Your task to perform on an android device: Open Chrome and go to settings Image 0: 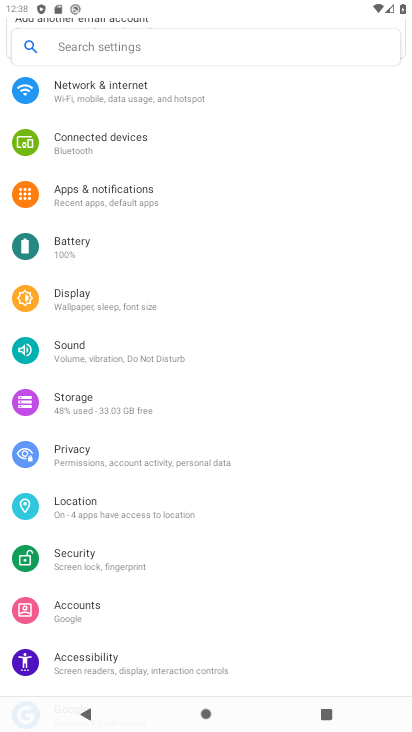
Step 0: press home button
Your task to perform on an android device: Open Chrome and go to settings Image 1: 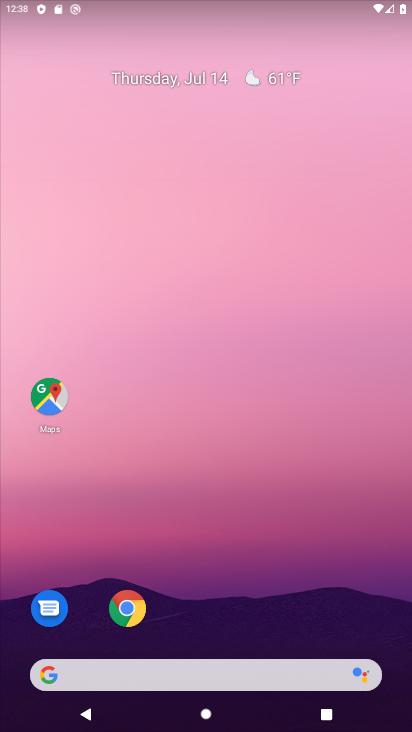
Step 1: drag from (366, 589) to (347, 180)
Your task to perform on an android device: Open Chrome and go to settings Image 2: 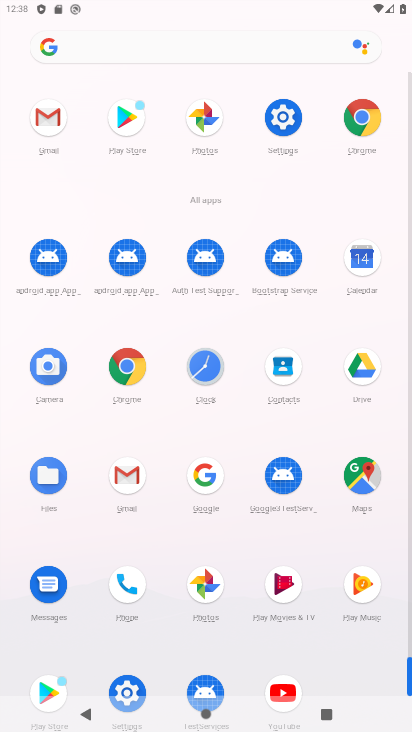
Step 2: click (130, 365)
Your task to perform on an android device: Open Chrome and go to settings Image 3: 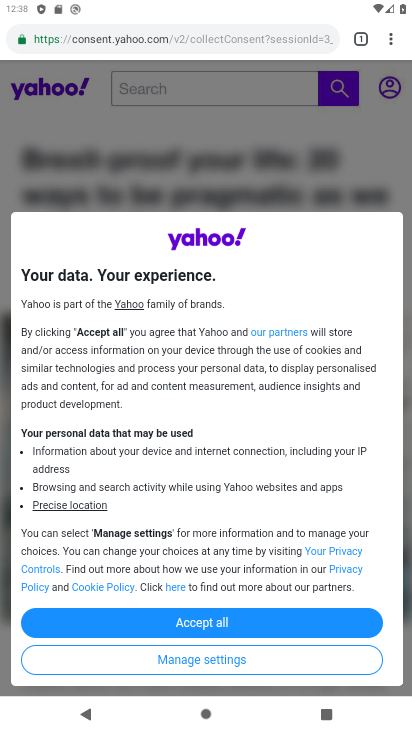
Step 3: click (391, 42)
Your task to perform on an android device: Open Chrome and go to settings Image 4: 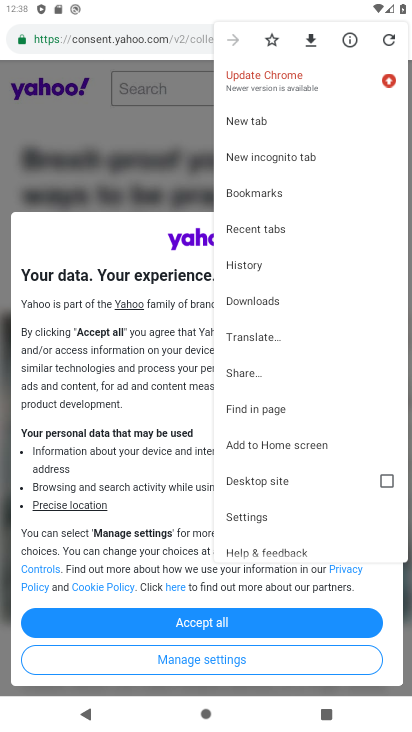
Step 4: drag from (343, 327) to (343, 253)
Your task to perform on an android device: Open Chrome and go to settings Image 5: 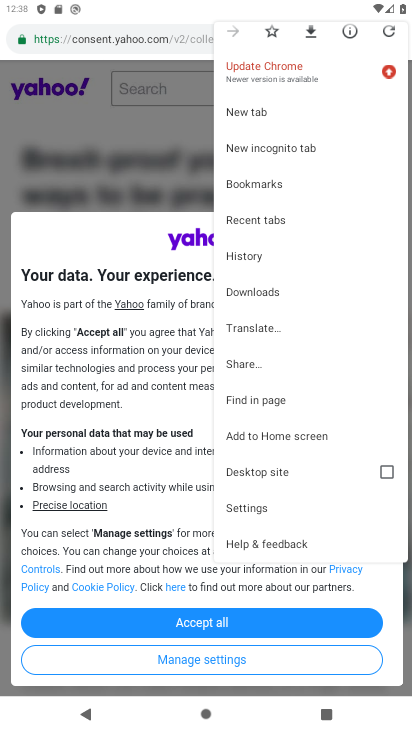
Step 5: drag from (340, 204) to (340, 291)
Your task to perform on an android device: Open Chrome and go to settings Image 6: 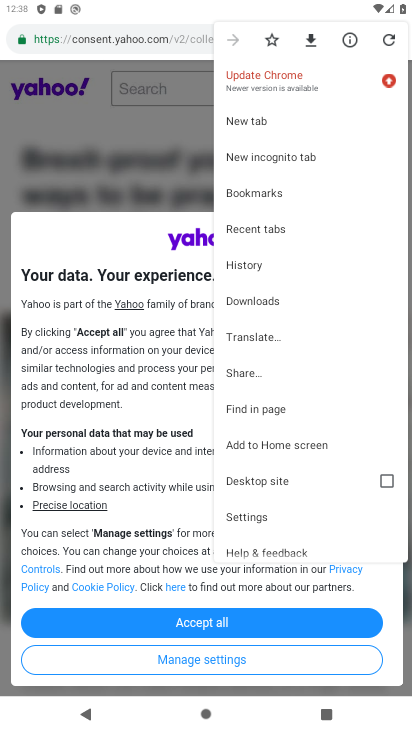
Step 6: click (268, 509)
Your task to perform on an android device: Open Chrome and go to settings Image 7: 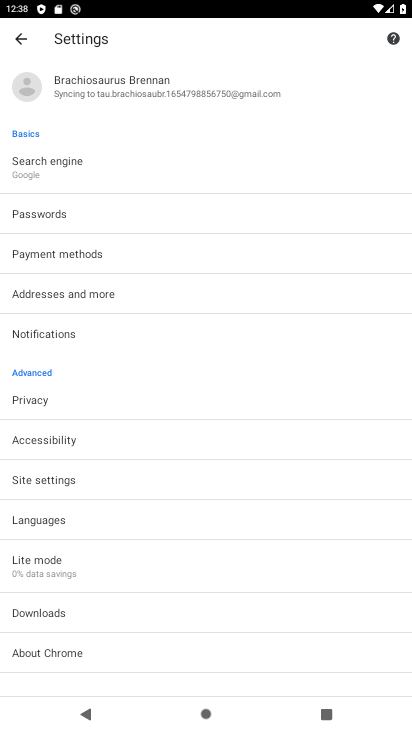
Step 7: task complete